Your task to perform on an android device: Open Youtube and go to "Your channel" Image 0: 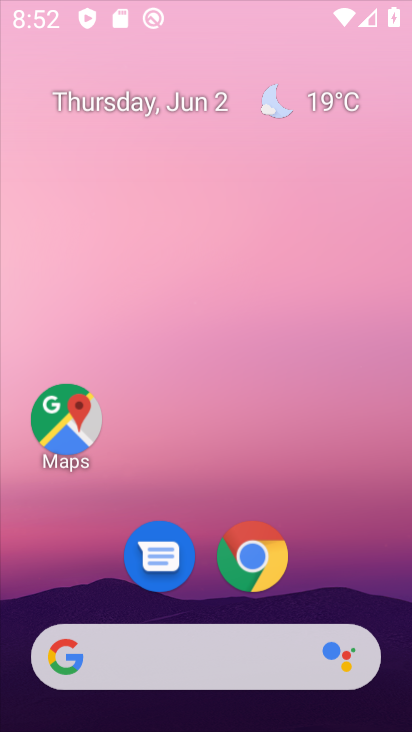
Step 0: press home button
Your task to perform on an android device: Open Youtube and go to "Your channel" Image 1: 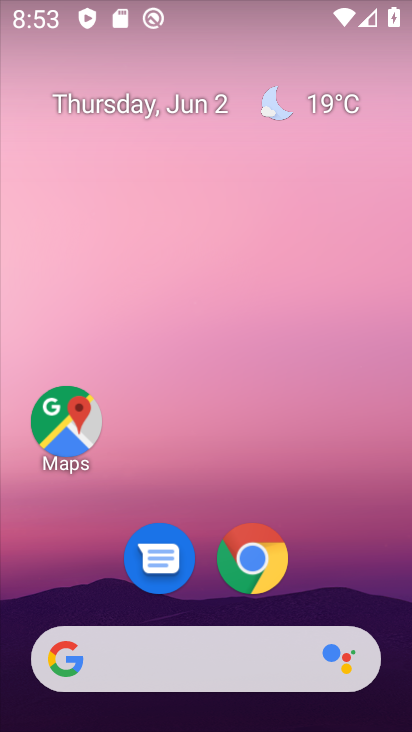
Step 1: drag from (379, 616) to (361, 329)
Your task to perform on an android device: Open Youtube and go to "Your channel" Image 2: 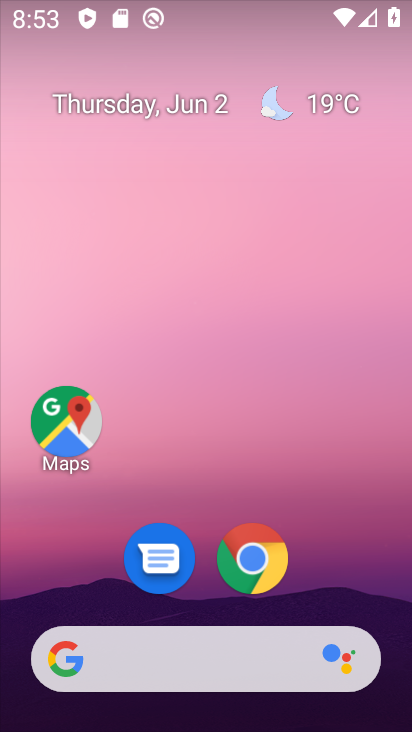
Step 2: drag from (387, 547) to (326, 89)
Your task to perform on an android device: Open Youtube and go to "Your channel" Image 3: 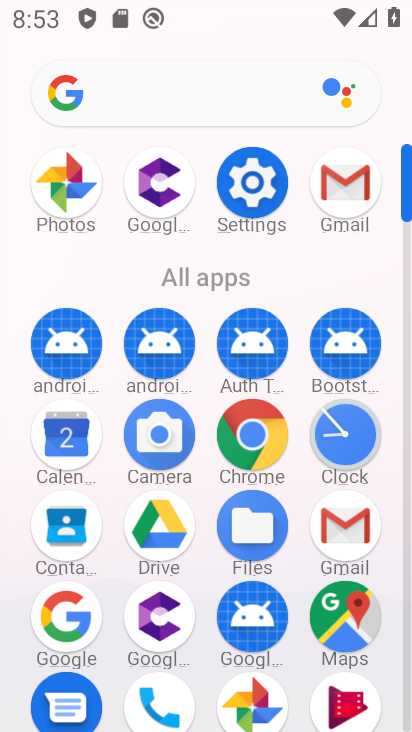
Step 3: drag from (409, 717) to (411, 534)
Your task to perform on an android device: Open Youtube and go to "Your channel" Image 4: 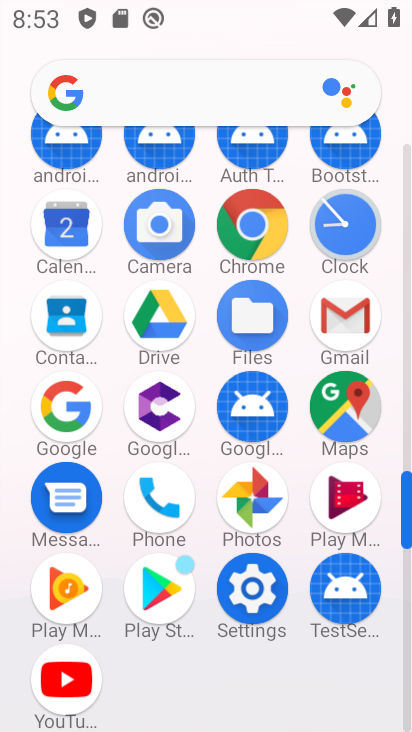
Step 4: click (67, 680)
Your task to perform on an android device: Open Youtube and go to "Your channel" Image 5: 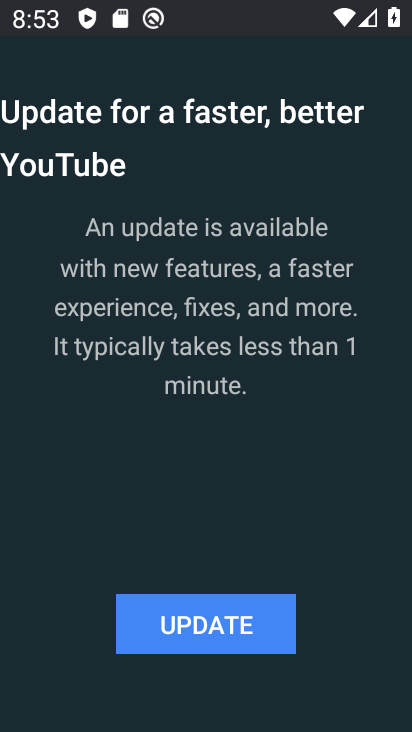
Step 5: click (201, 626)
Your task to perform on an android device: Open Youtube and go to "Your channel" Image 6: 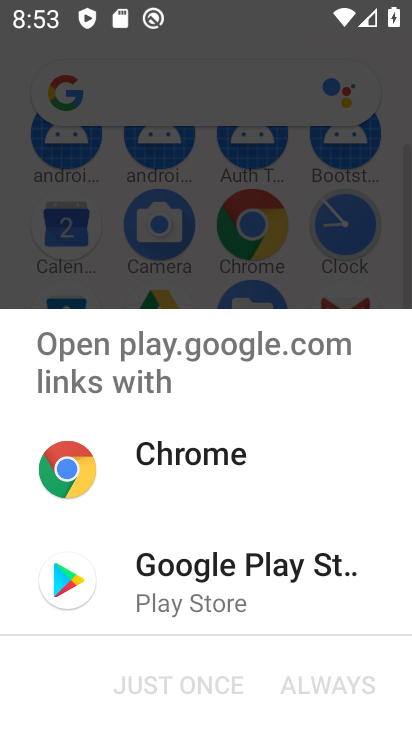
Step 6: click (192, 589)
Your task to perform on an android device: Open Youtube and go to "Your channel" Image 7: 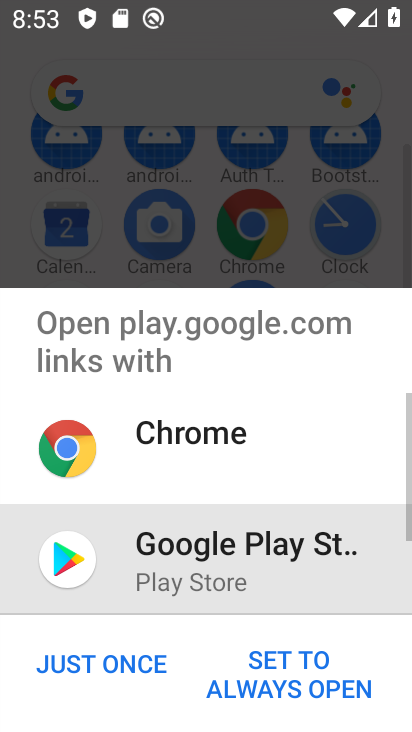
Step 7: click (88, 666)
Your task to perform on an android device: Open Youtube and go to "Your channel" Image 8: 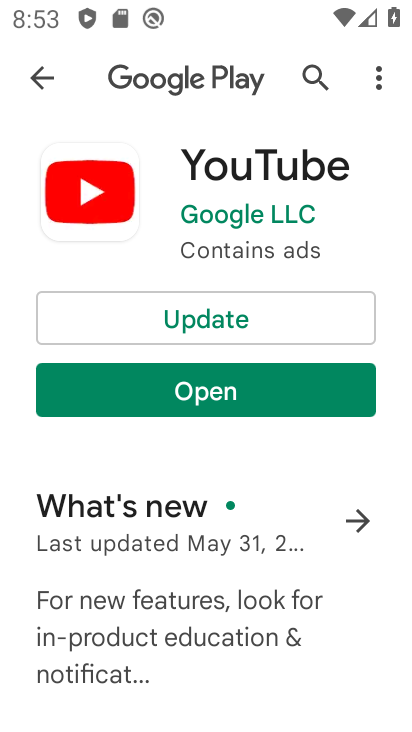
Step 8: click (200, 315)
Your task to perform on an android device: Open Youtube and go to "Your channel" Image 9: 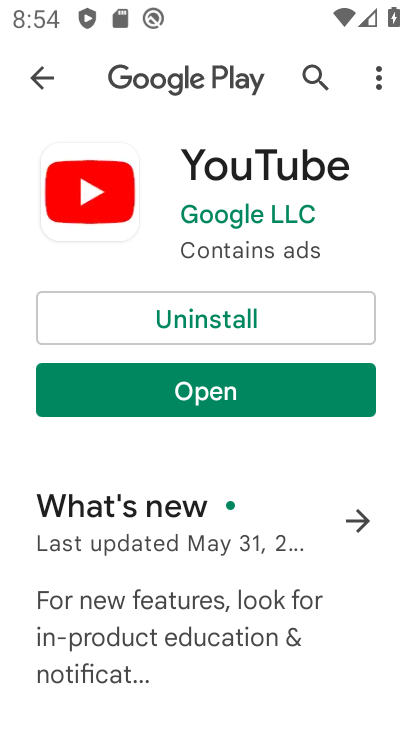
Step 9: click (218, 391)
Your task to perform on an android device: Open Youtube and go to "Your channel" Image 10: 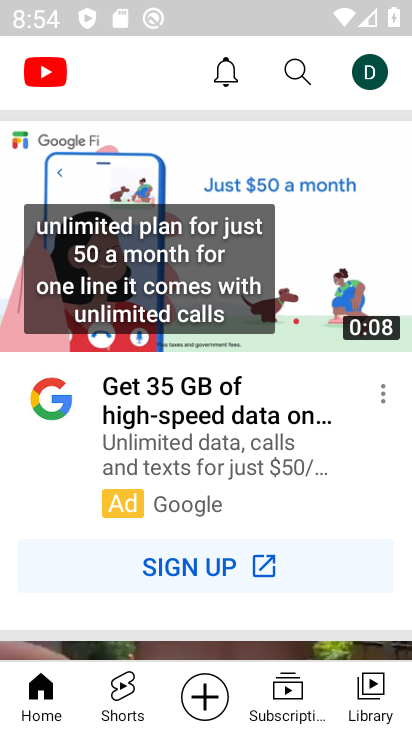
Step 10: click (370, 71)
Your task to perform on an android device: Open Youtube and go to "Your channel" Image 11: 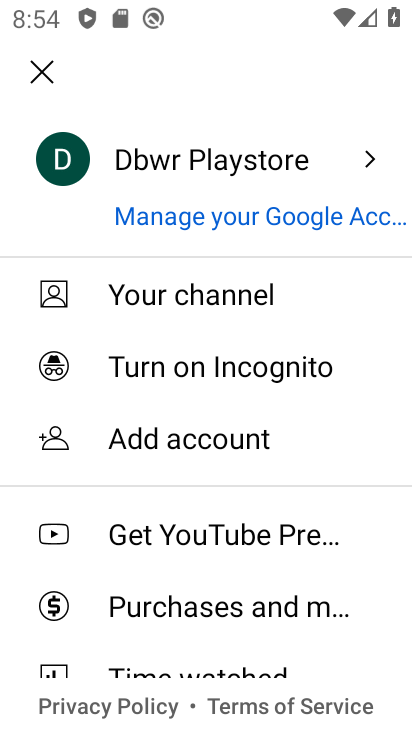
Step 11: click (177, 298)
Your task to perform on an android device: Open Youtube and go to "Your channel" Image 12: 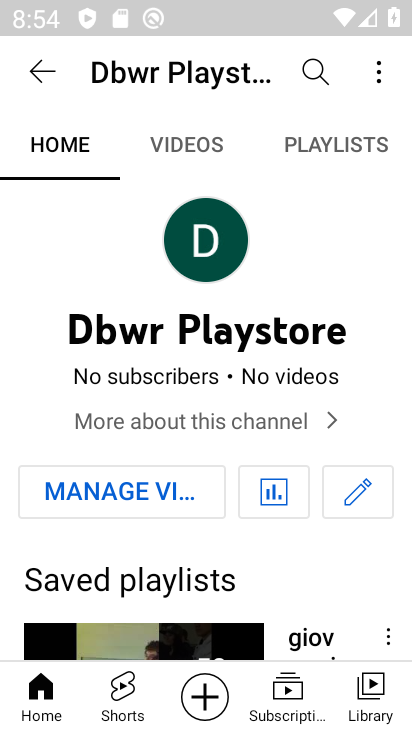
Step 12: task complete